Your task to perform on an android device: snooze an email in the gmail app Image 0: 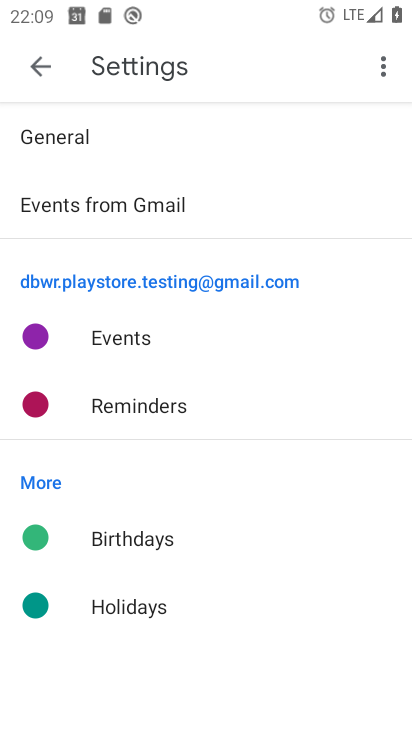
Step 0: press home button
Your task to perform on an android device: snooze an email in the gmail app Image 1: 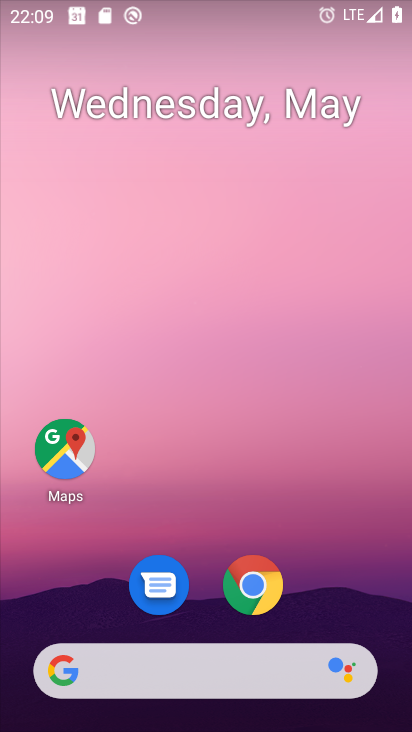
Step 1: drag from (324, 462) to (263, 53)
Your task to perform on an android device: snooze an email in the gmail app Image 2: 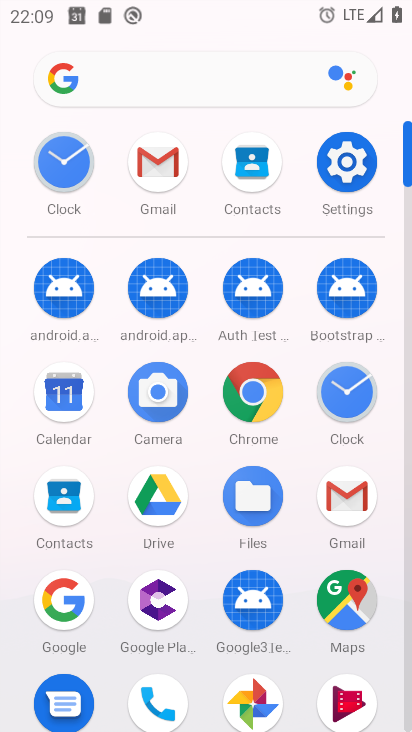
Step 2: click (164, 164)
Your task to perform on an android device: snooze an email in the gmail app Image 3: 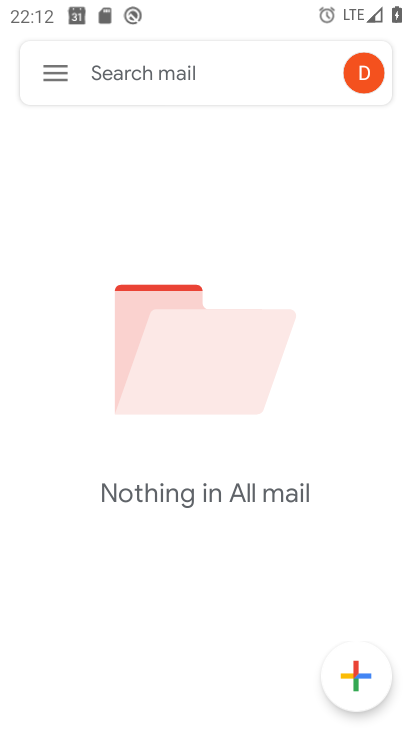
Step 3: task complete